Your task to perform on an android device: What's the weather today? Image 0: 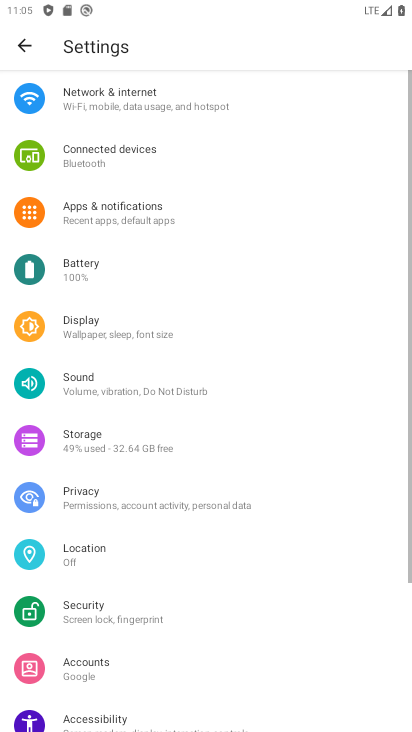
Step 0: press home button
Your task to perform on an android device: What's the weather today? Image 1: 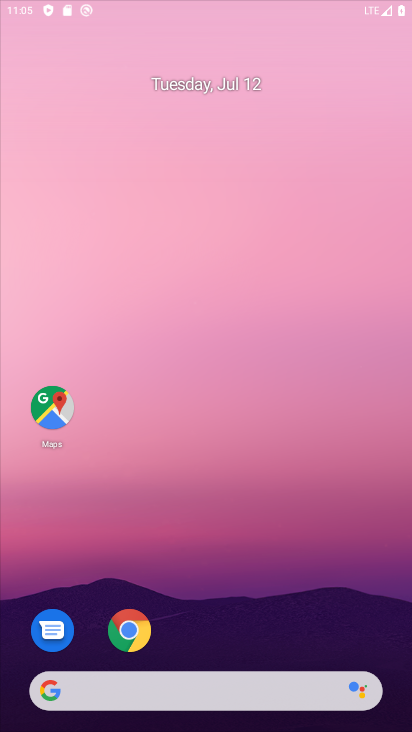
Step 1: drag from (390, 679) to (145, 48)
Your task to perform on an android device: What's the weather today? Image 2: 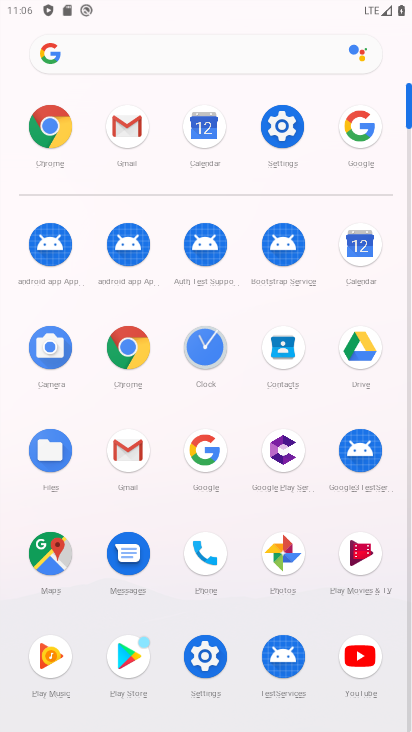
Step 2: click (216, 470)
Your task to perform on an android device: What's the weather today? Image 3: 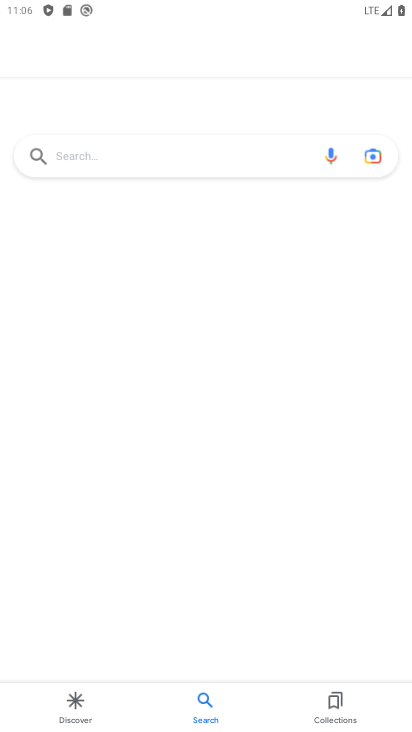
Step 3: click (130, 162)
Your task to perform on an android device: What's the weather today? Image 4: 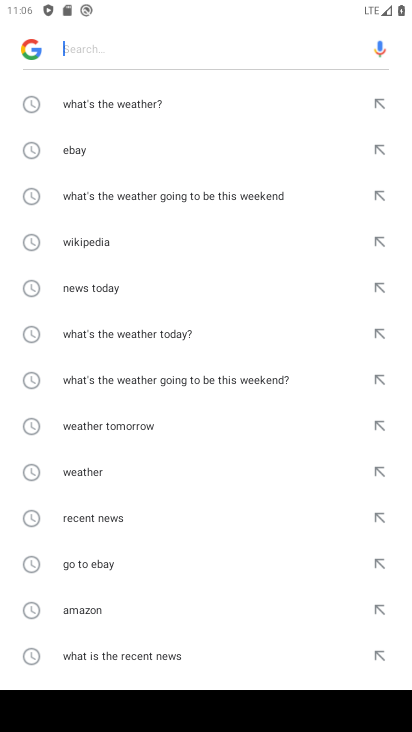
Step 4: type "What's the weather today?"
Your task to perform on an android device: What's the weather today? Image 5: 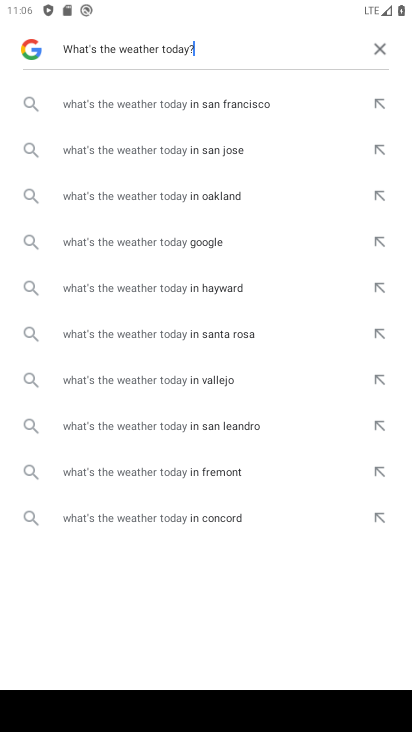
Step 5: click (168, 258)
Your task to perform on an android device: What's the weather today? Image 6: 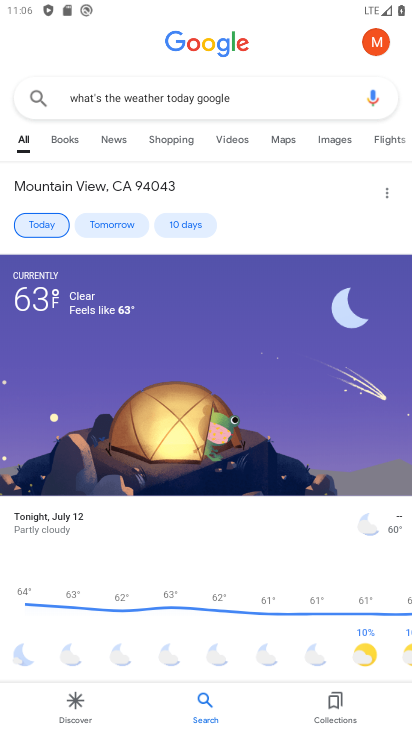
Step 6: task complete